Your task to perform on an android device: turn off location Image 0: 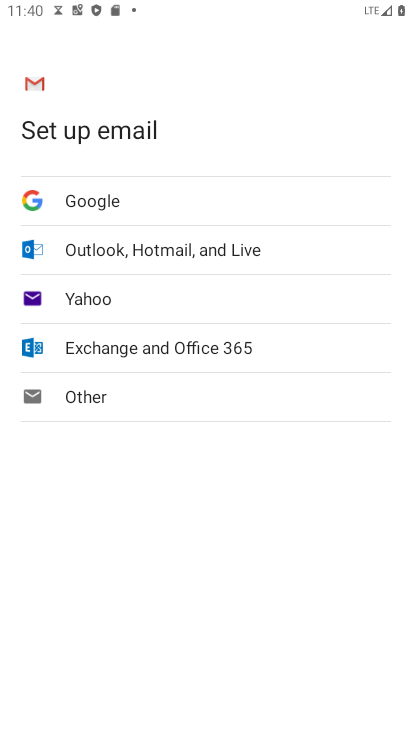
Step 0: press home button
Your task to perform on an android device: turn off location Image 1: 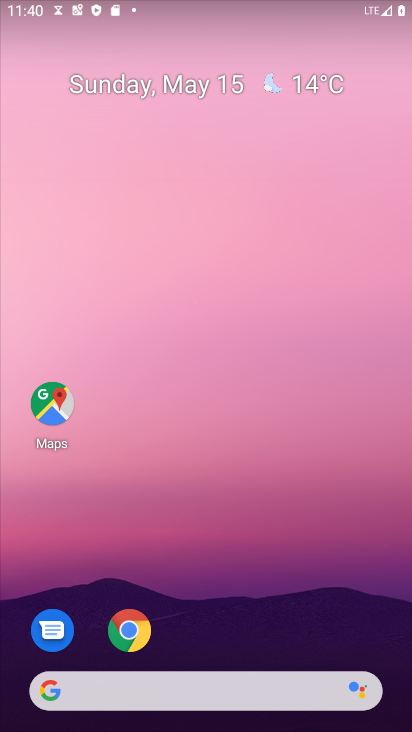
Step 1: drag from (72, 605) to (285, 121)
Your task to perform on an android device: turn off location Image 2: 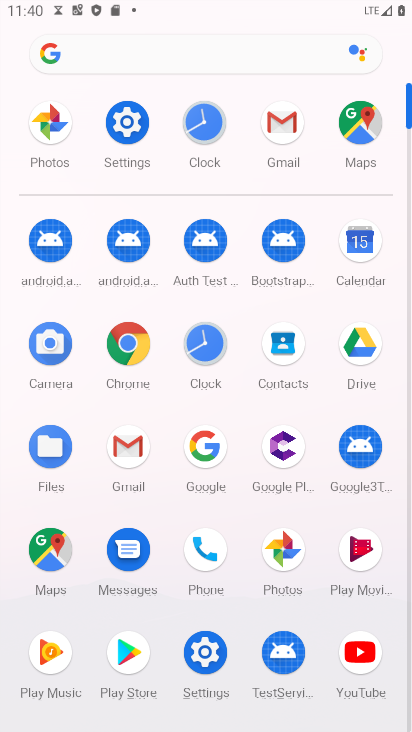
Step 2: click (121, 123)
Your task to perform on an android device: turn off location Image 3: 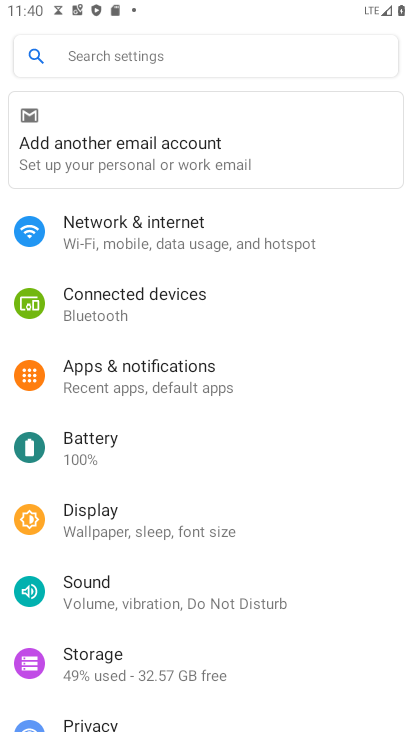
Step 3: click (94, 654)
Your task to perform on an android device: turn off location Image 4: 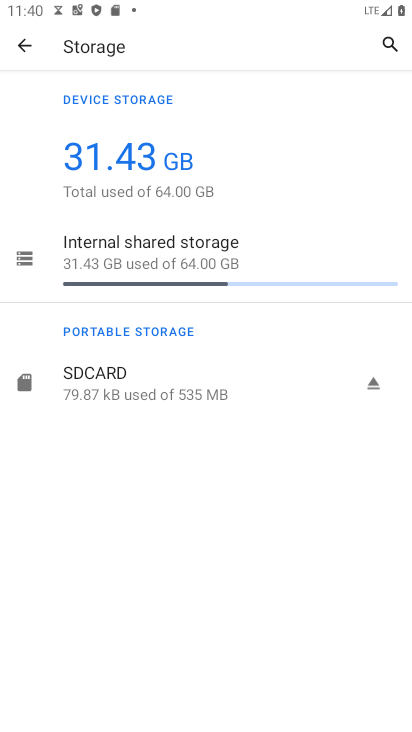
Step 4: press back button
Your task to perform on an android device: turn off location Image 5: 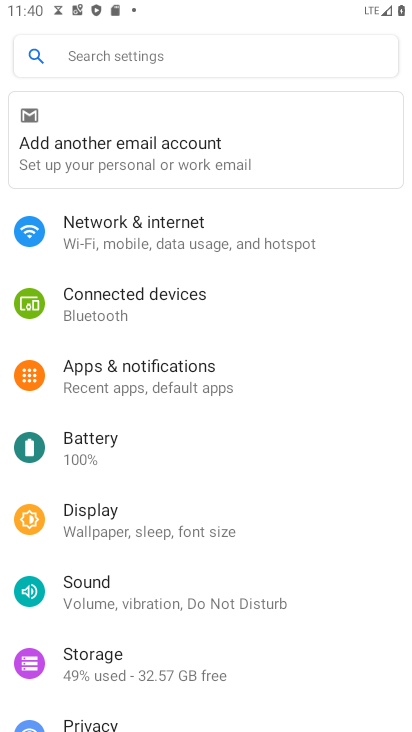
Step 5: drag from (64, 657) to (355, 149)
Your task to perform on an android device: turn off location Image 6: 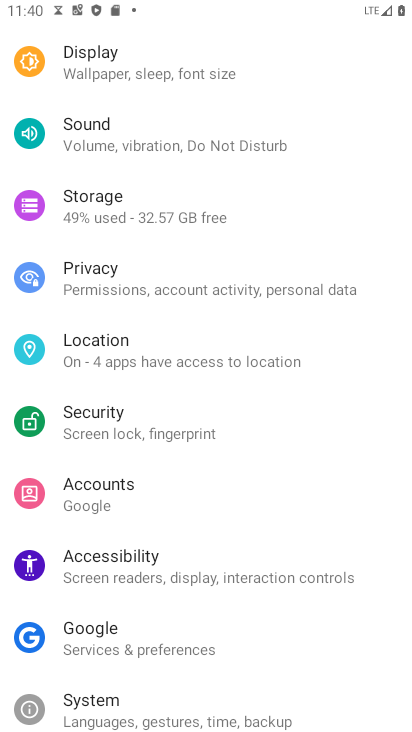
Step 6: click (120, 351)
Your task to perform on an android device: turn off location Image 7: 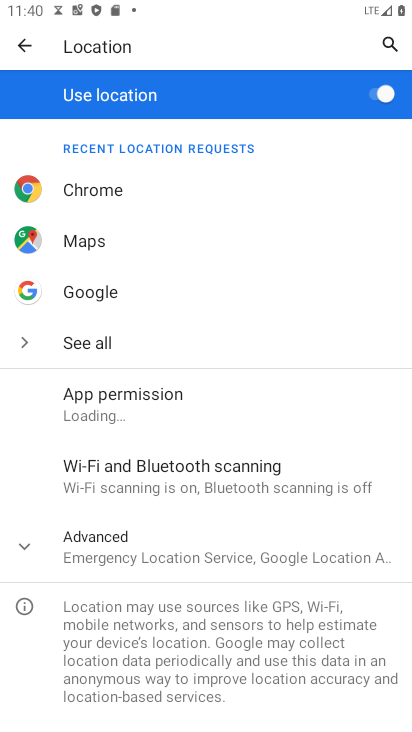
Step 7: click (388, 98)
Your task to perform on an android device: turn off location Image 8: 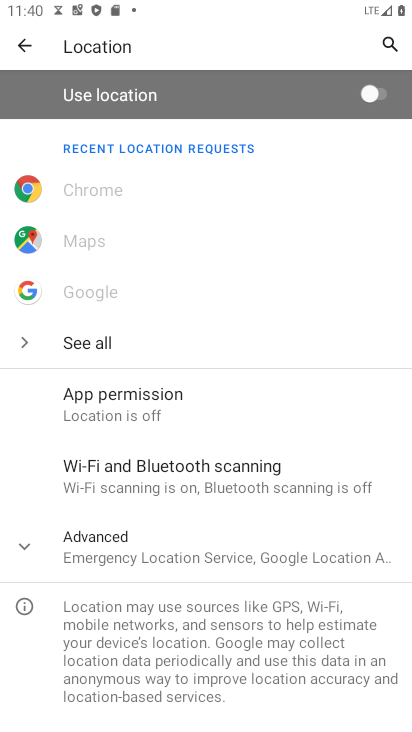
Step 8: task complete